Your task to perform on an android device: move a message to another label in the gmail app Image 0: 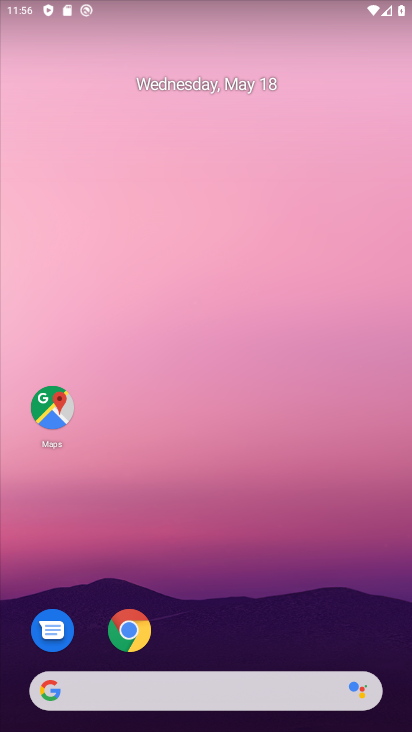
Step 0: drag from (205, 669) to (286, 148)
Your task to perform on an android device: move a message to another label in the gmail app Image 1: 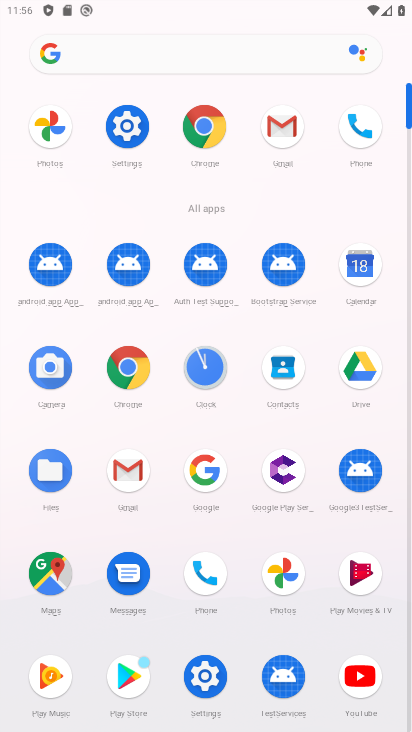
Step 1: click (137, 461)
Your task to perform on an android device: move a message to another label in the gmail app Image 2: 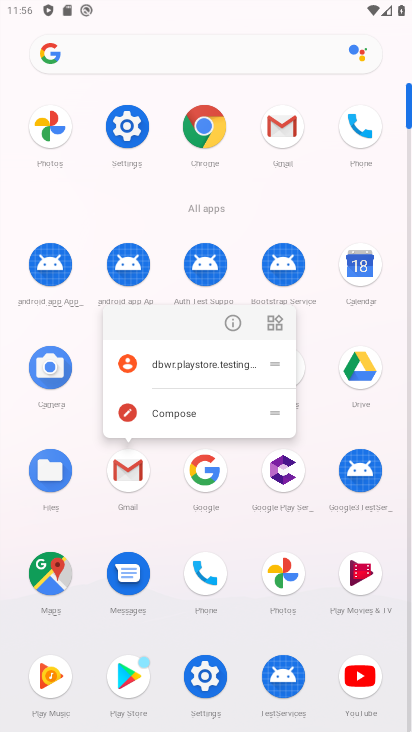
Step 2: click (175, 365)
Your task to perform on an android device: move a message to another label in the gmail app Image 3: 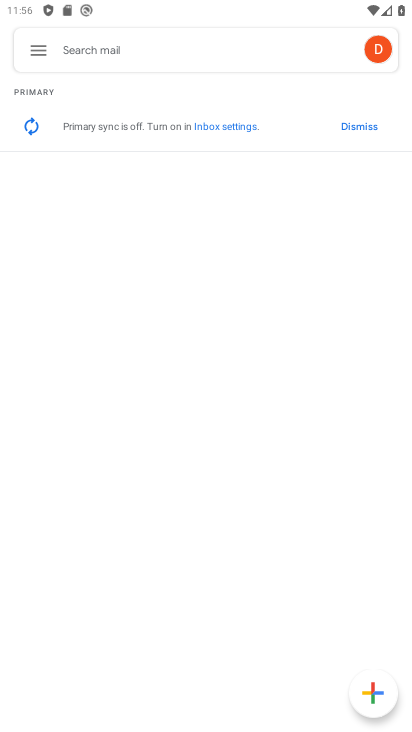
Step 3: click (79, 130)
Your task to perform on an android device: move a message to another label in the gmail app Image 4: 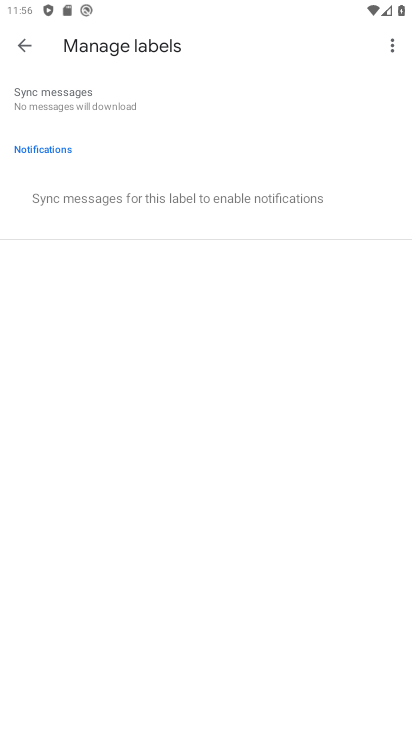
Step 4: task complete